Your task to perform on an android device: Open maps Image 0: 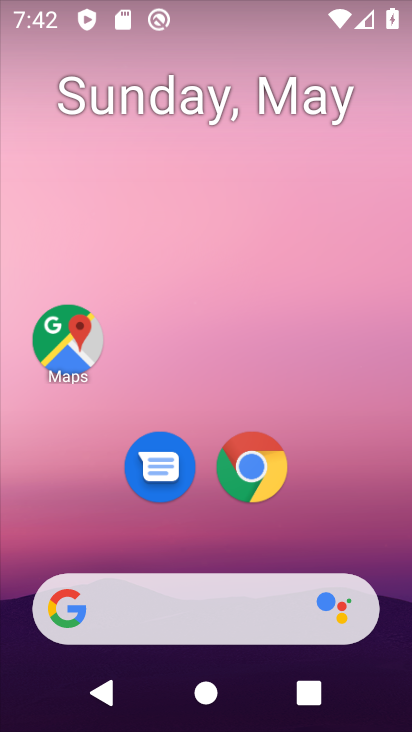
Step 0: click (60, 346)
Your task to perform on an android device: Open maps Image 1: 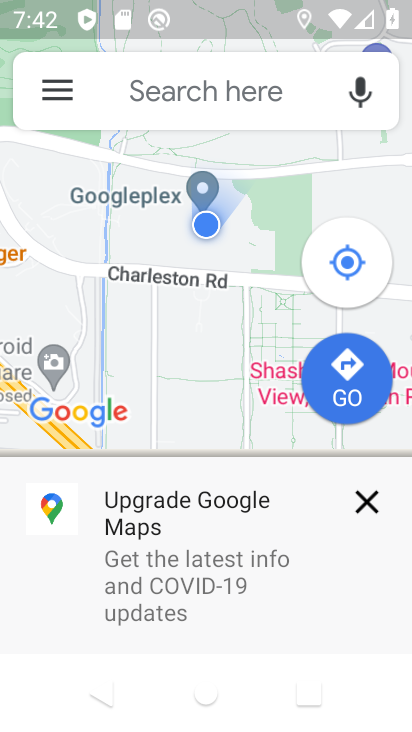
Step 1: task complete